Your task to perform on an android device: star an email in the gmail app Image 0: 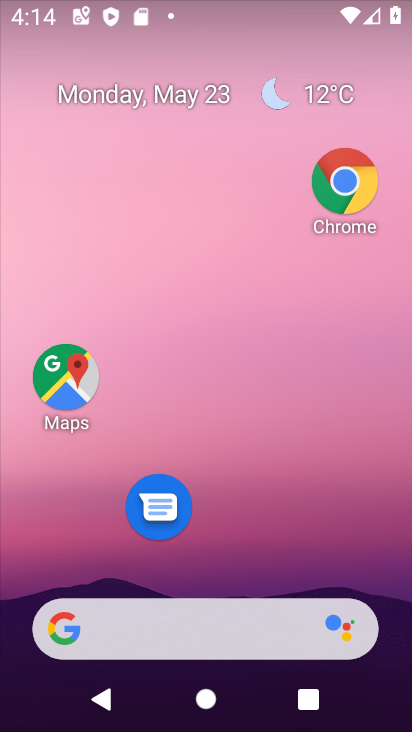
Step 0: drag from (209, 551) to (217, 157)
Your task to perform on an android device: star an email in the gmail app Image 1: 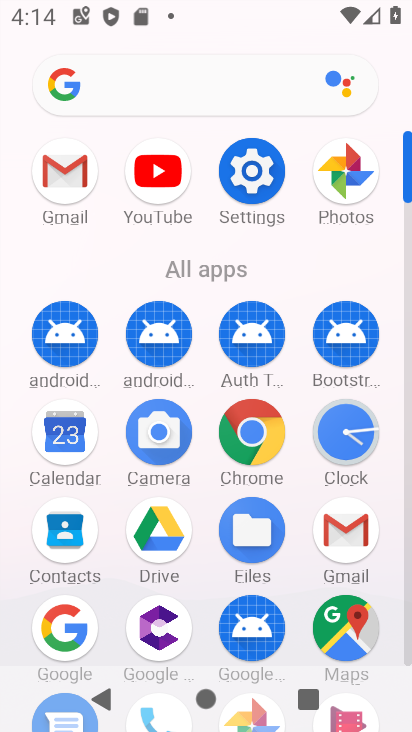
Step 1: click (84, 190)
Your task to perform on an android device: star an email in the gmail app Image 2: 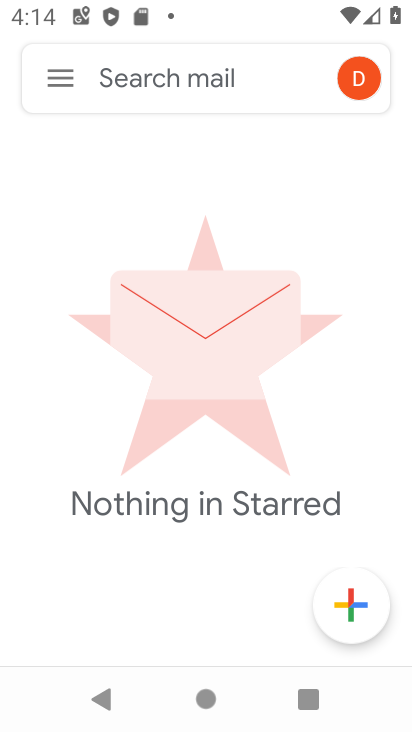
Step 2: click (63, 92)
Your task to perform on an android device: star an email in the gmail app Image 3: 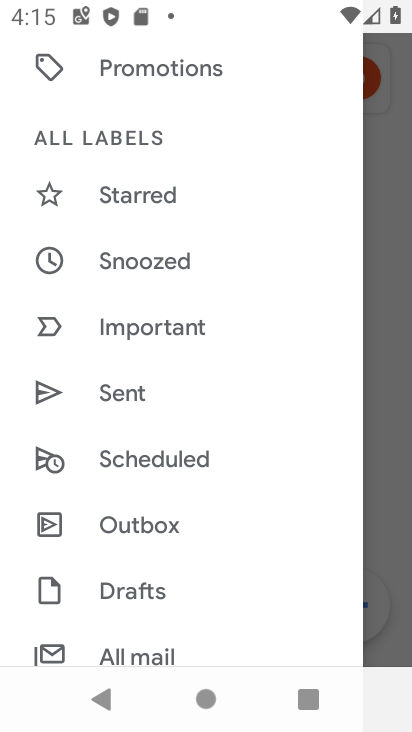
Step 3: drag from (216, 182) to (257, 139)
Your task to perform on an android device: star an email in the gmail app Image 4: 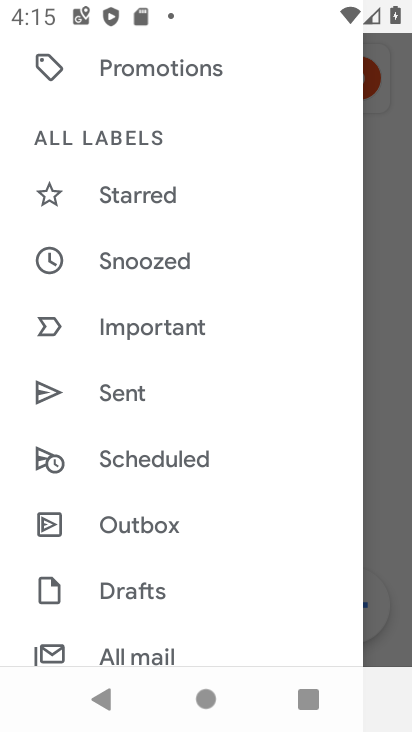
Step 4: click (131, 651)
Your task to perform on an android device: star an email in the gmail app Image 5: 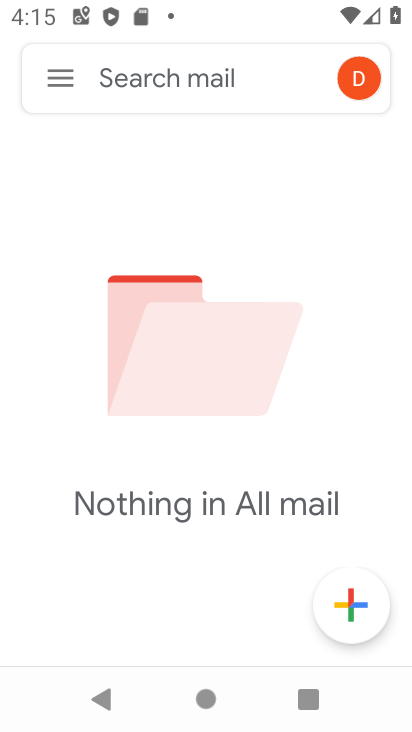
Step 5: task complete